Your task to perform on an android device: Open Google Maps and go to "Timeline" Image 0: 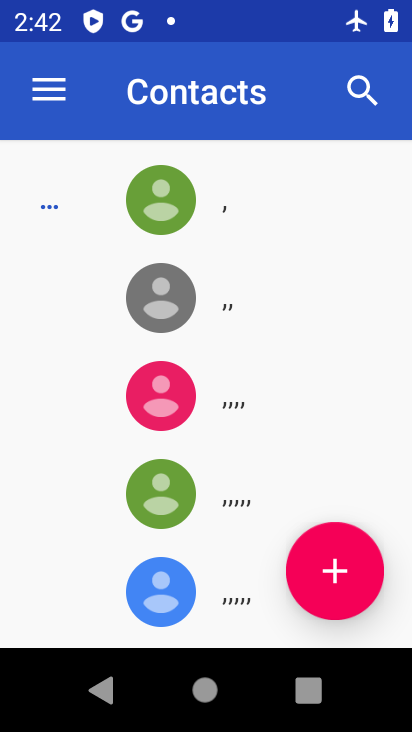
Step 0: press home button
Your task to perform on an android device: Open Google Maps and go to "Timeline" Image 1: 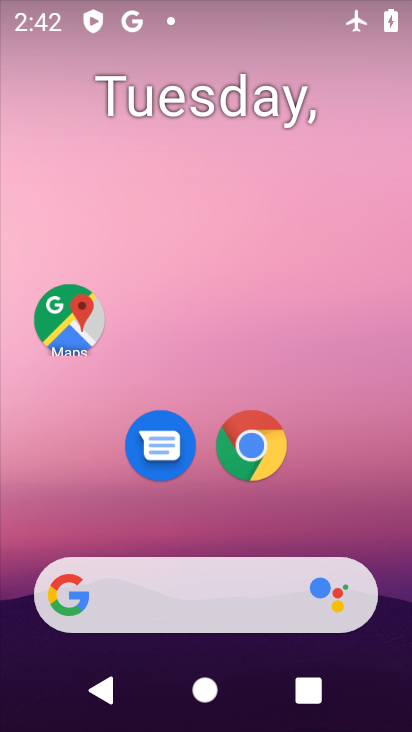
Step 1: click (88, 325)
Your task to perform on an android device: Open Google Maps and go to "Timeline" Image 2: 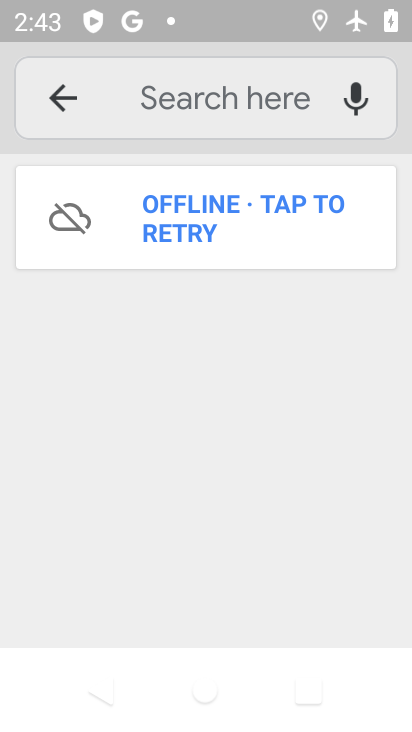
Step 2: task complete